Your task to perform on an android device: Open the calendar app, open the side menu, and click the "Day" option Image 0: 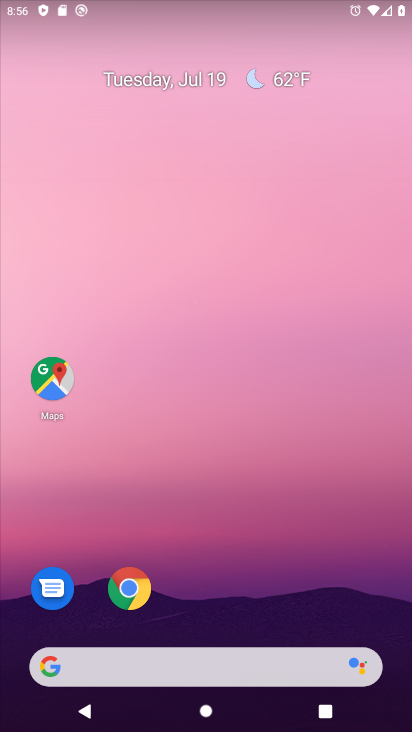
Step 0: drag from (319, 580) to (165, 5)
Your task to perform on an android device: Open the calendar app, open the side menu, and click the "Day" option Image 1: 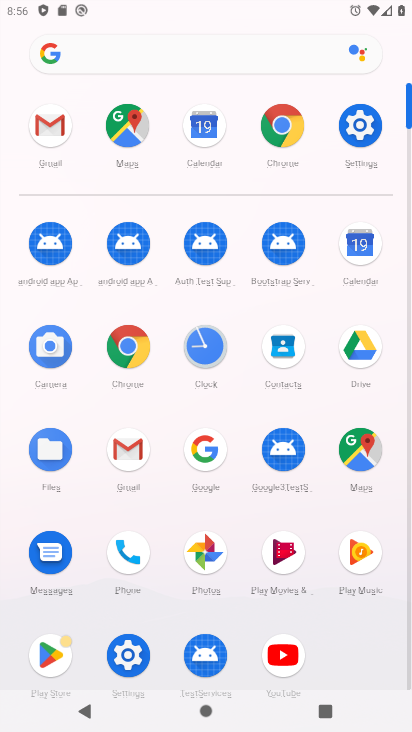
Step 1: click (352, 250)
Your task to perform on an android device: Open the calendar app, open the side menu, and click the "Day" option Image 2: 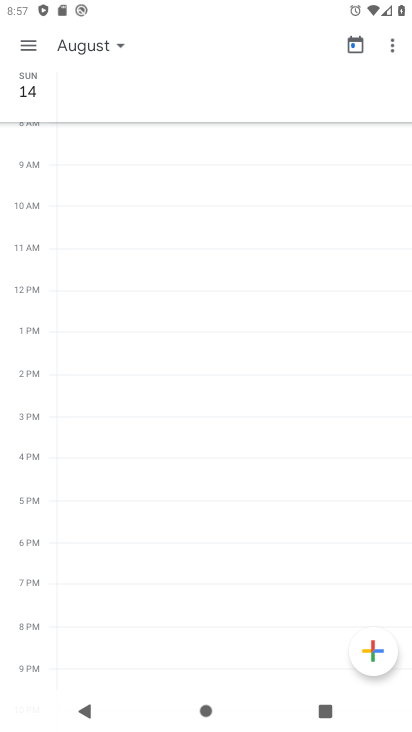
Step 2: click (26, 57)
Your task to perform on an android device: Open the calendar app, open the side menu, and click the "Day" option Image 3: 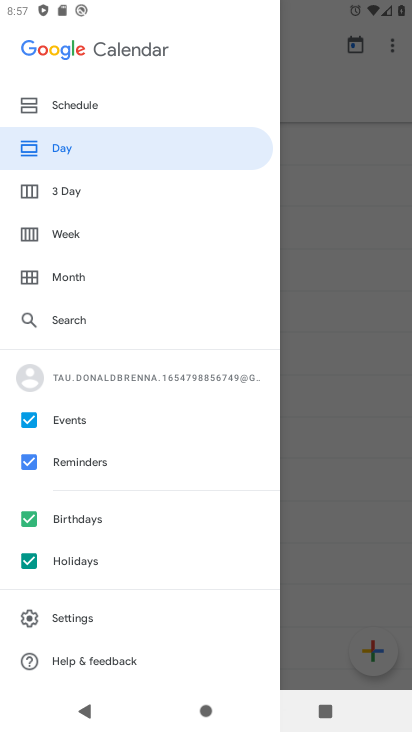
Step 3: click (81, 159)
Your task to perform on an android device: Open the calendar app, open the side menu, and click the "Day" option Image 4: 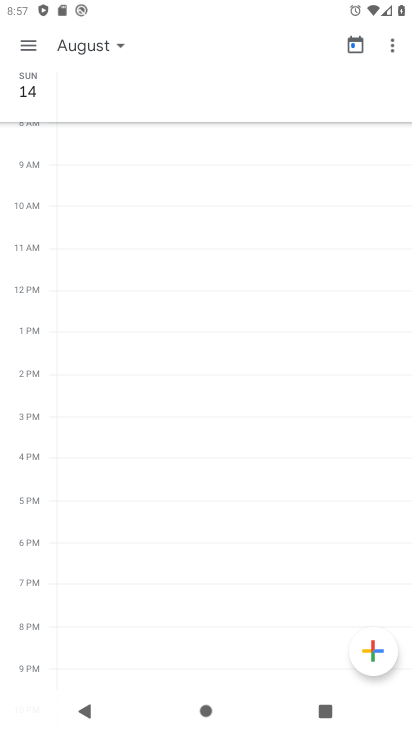
Step 4: task complete